Your task to perform on an android device: see creations saved in the google photos Image 0: 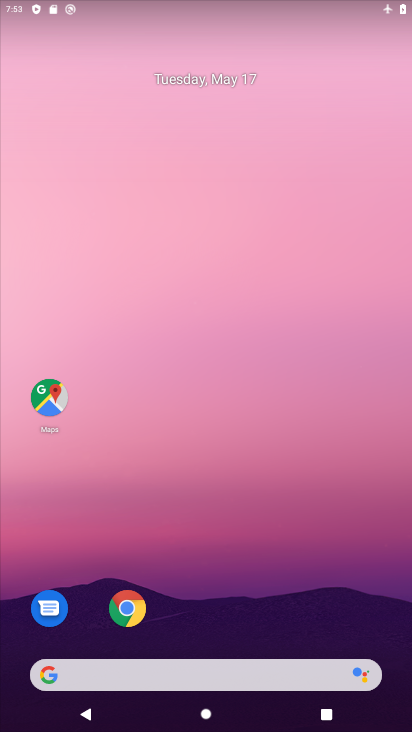
Step 0: drag from (357, 585) to (308, 83)
Your task to perform on an android device: see creations saved in the google photos Image 1: 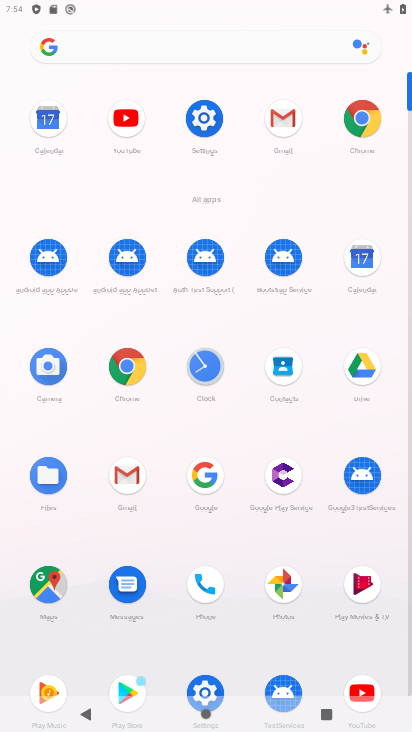
Step 1: drag from (182, 674) to (205, 415)
Your task to perform on an android device: see creations saved in the google photos Image 2: 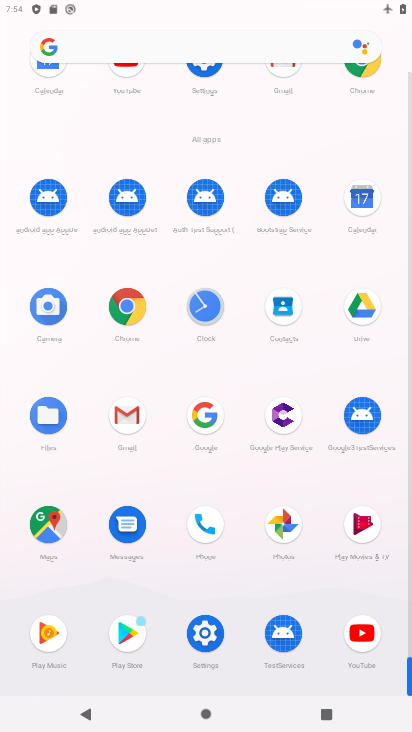
Step 2: click (278, 515)
Your task to perform on an android device: see creations saved in the google photos Image 3: 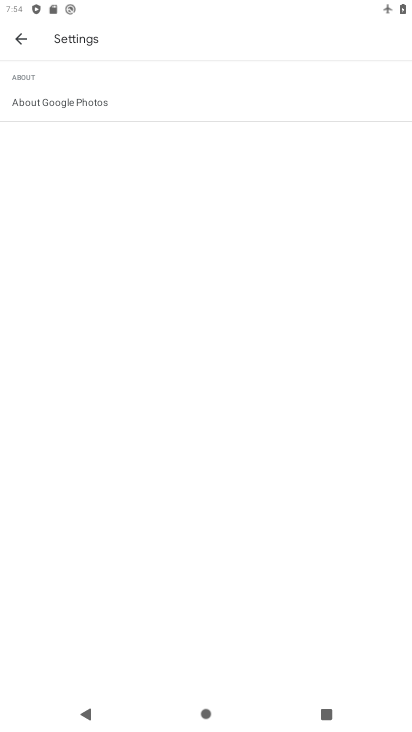
Step 3: click (23, 43)
Your task to perform on an android device: see creations saved in the google photos Image 4: 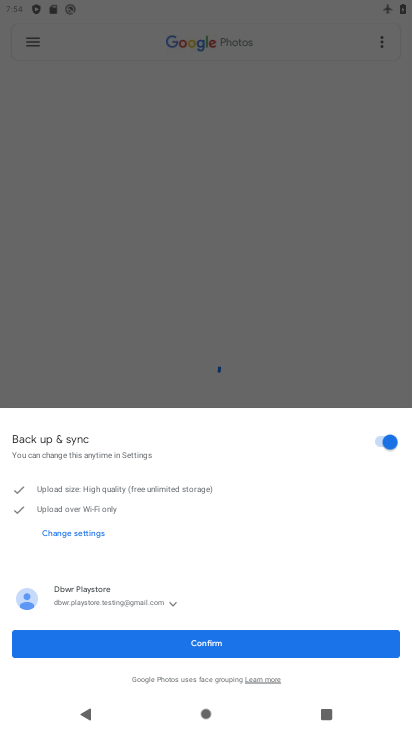
Step 4: click (249, 646)
Your task to perform on an android device: see creations saved in the google photos Image 5: 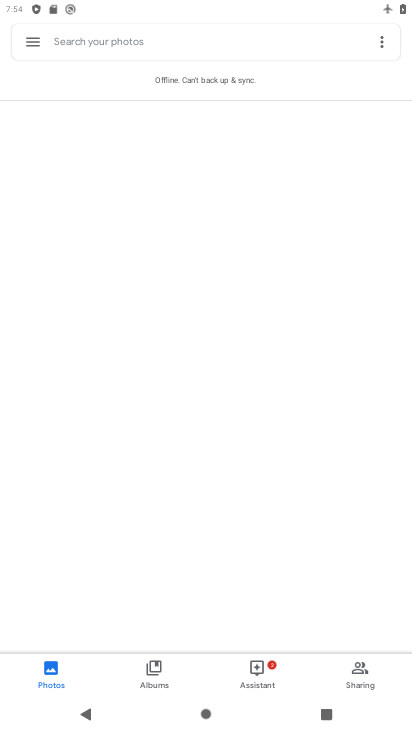
Step 5: click (96, 43)
Your task to perform on an android device: see creations saved in the google photos Image 6: 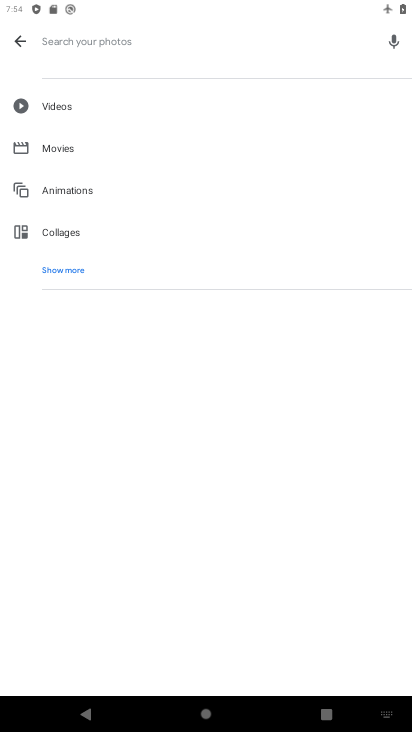
Step 6: type "creations"
Your task to perform on an android device: see creations saved in the google photos Image 7: 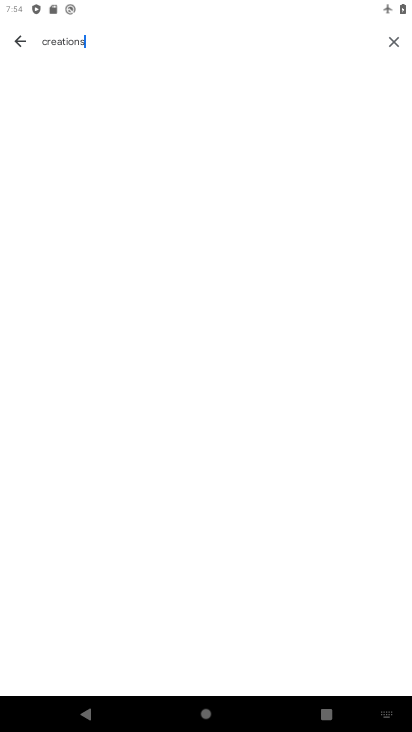
Step 7: task complete